Your task to perform on an android device: toggle translation in the chrome app Image 0: 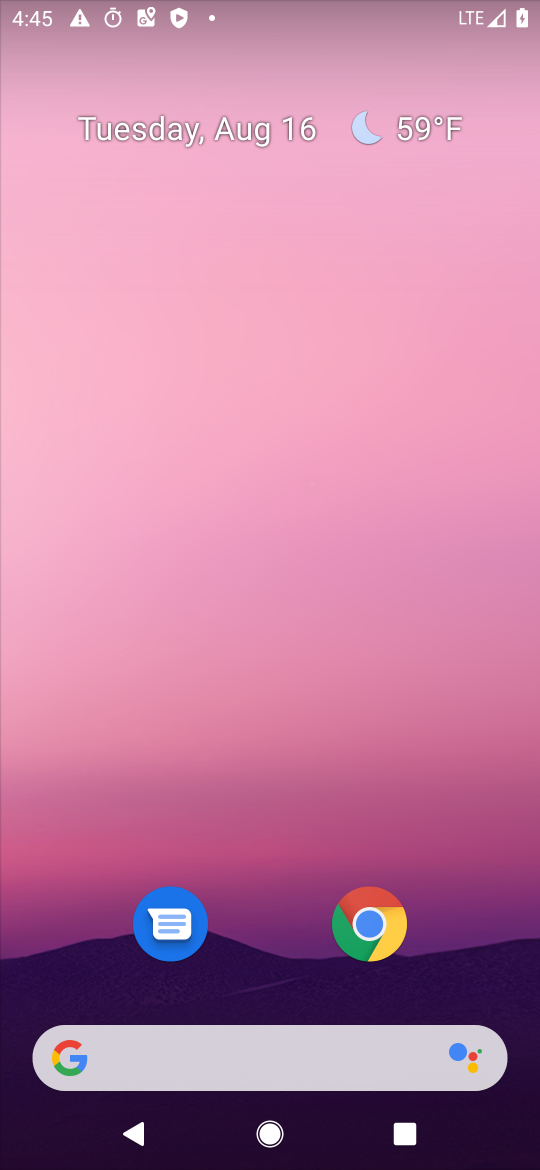
Step 0: click (380, 949)
Your task to perform on an android device: toggle translation in the chrome app Image 1: 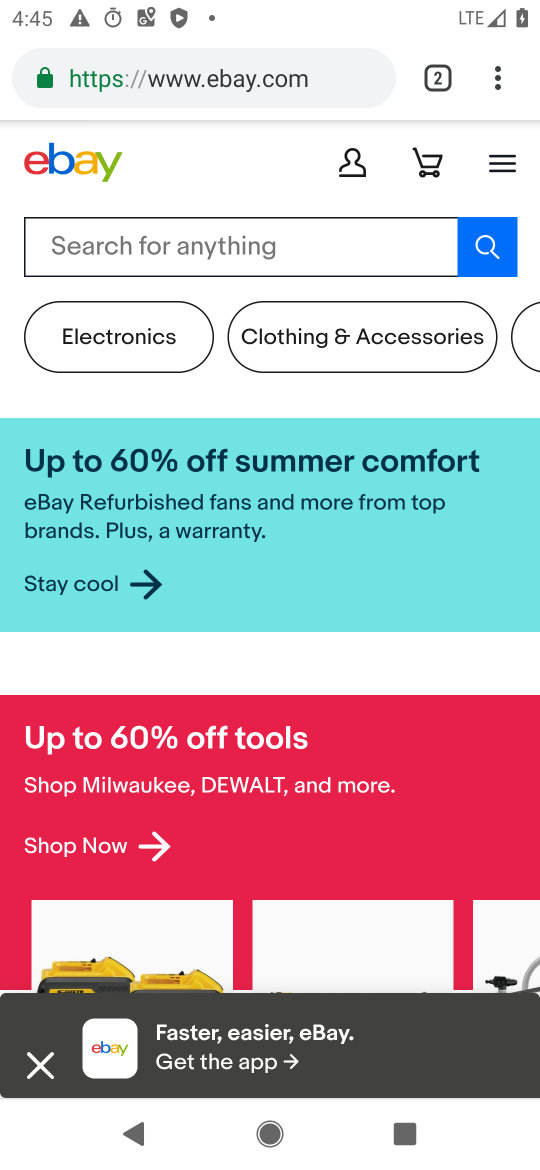
Step 1: click (499, 67)
Your task to perform on an android device: toggle translation in the chrome app Image 2: 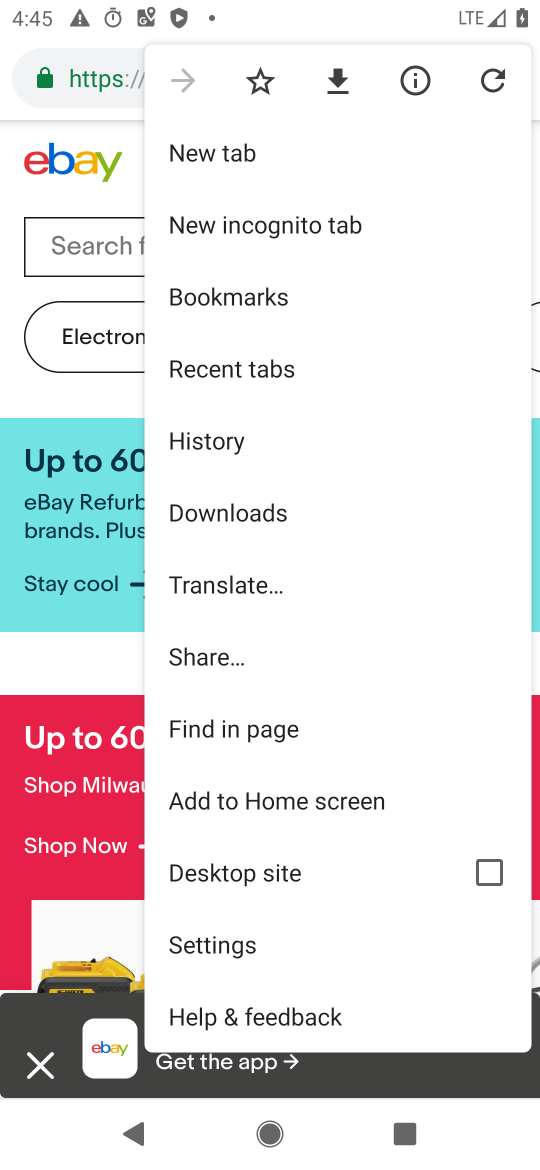
Step 2: click (252, 947)
Your task to perform on an android device: toggle translation in the chrome app Image 3: 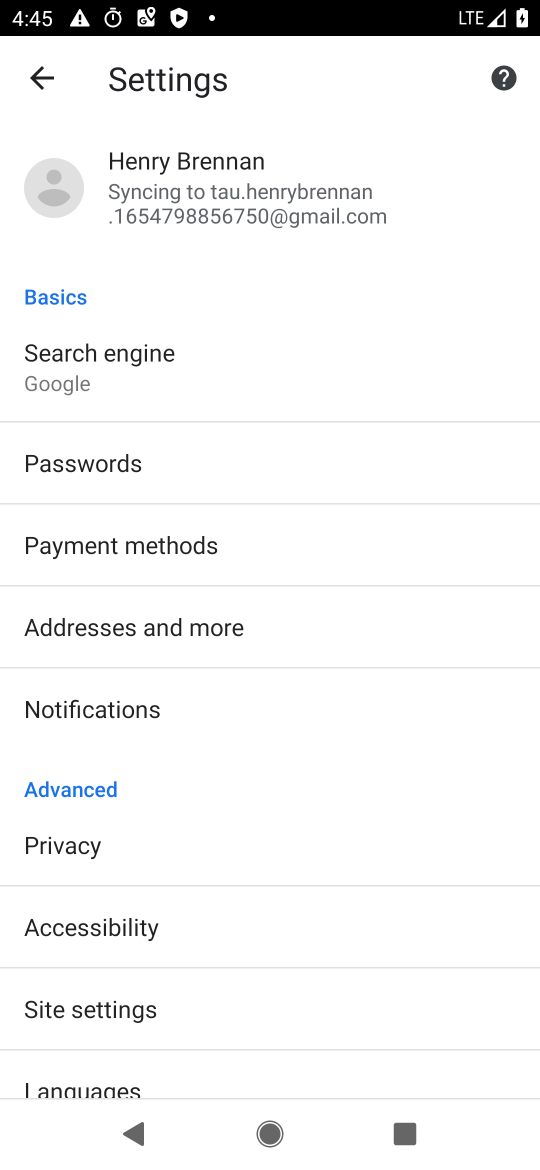
Step 3: click (126, 1068)
Your task to perform on an android device: toggle translation in the chrome app Image 4: 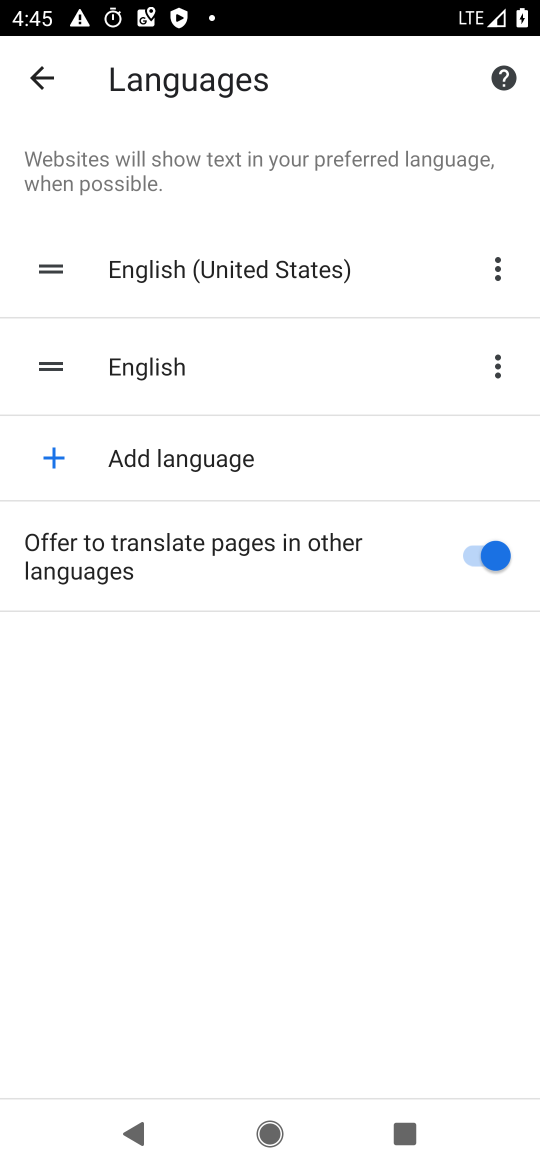
Step 4: click (485, 559)
Your task to perform on an android device: toggle translation in the chrome app Image 5: 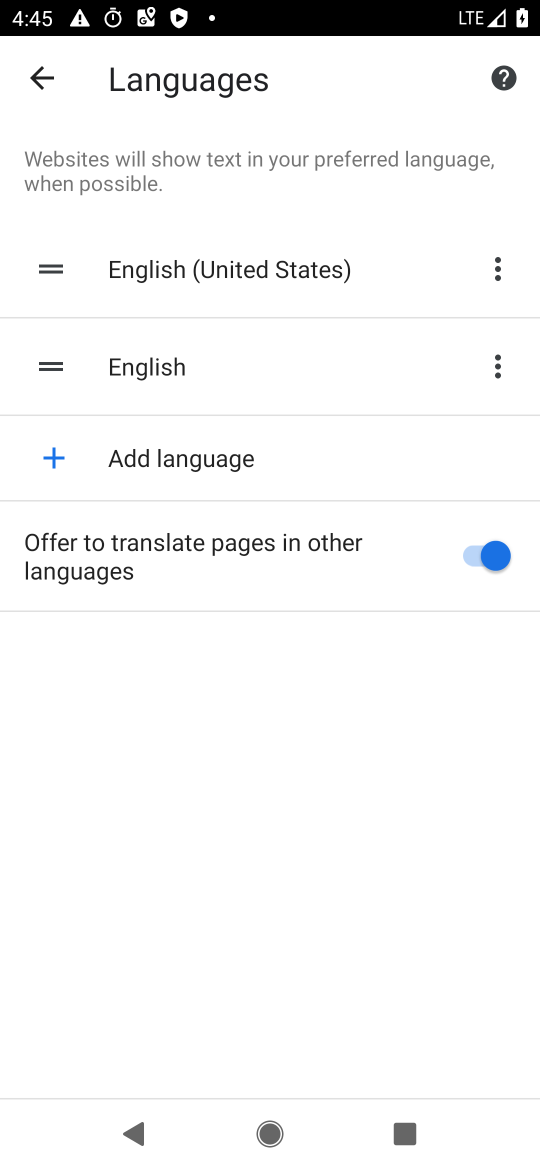
Step 5: click (485, 559)
Your task to perform on an android device: toggle translation in the chrome app Image 6: 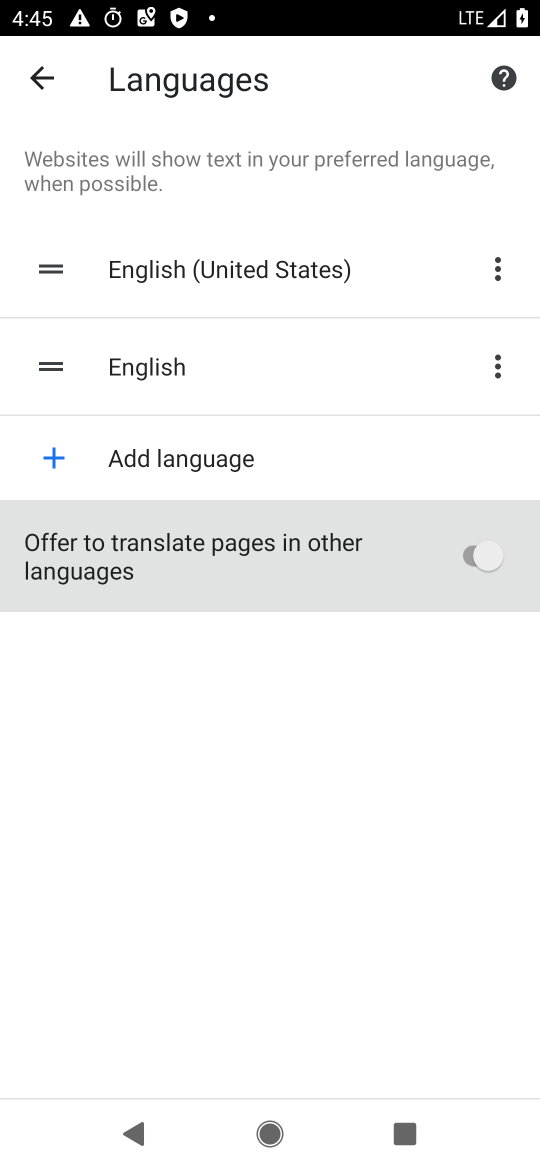
Step 6: click (485, 559)
Your task to perform on an android device: toggle translation in the chrome app Image 7: 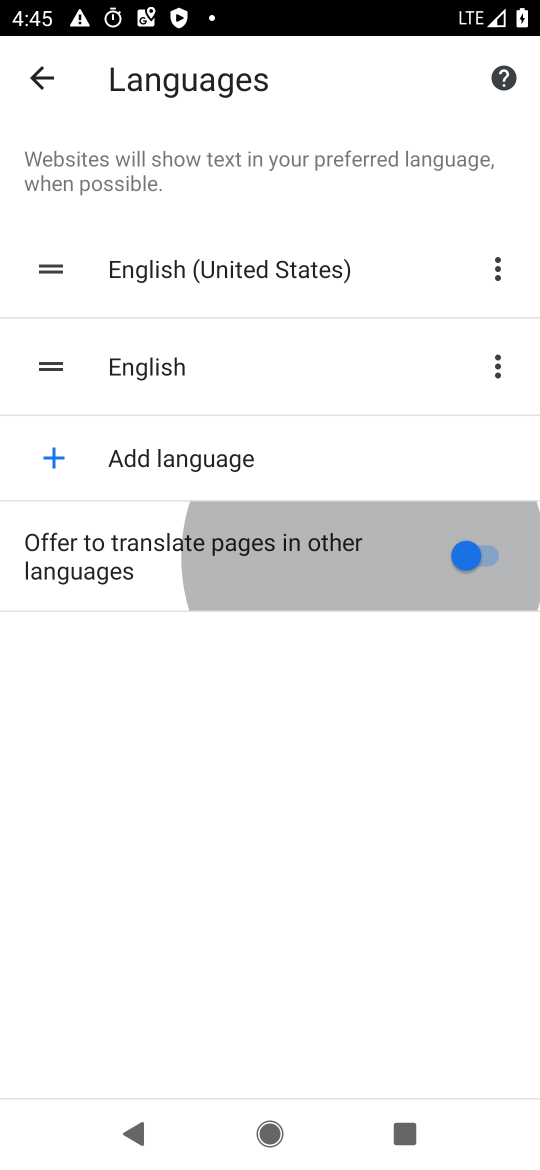
Step 7: click (485, 559)
Your task to perform on an android device: toggle translation in the chrome app Image 8: 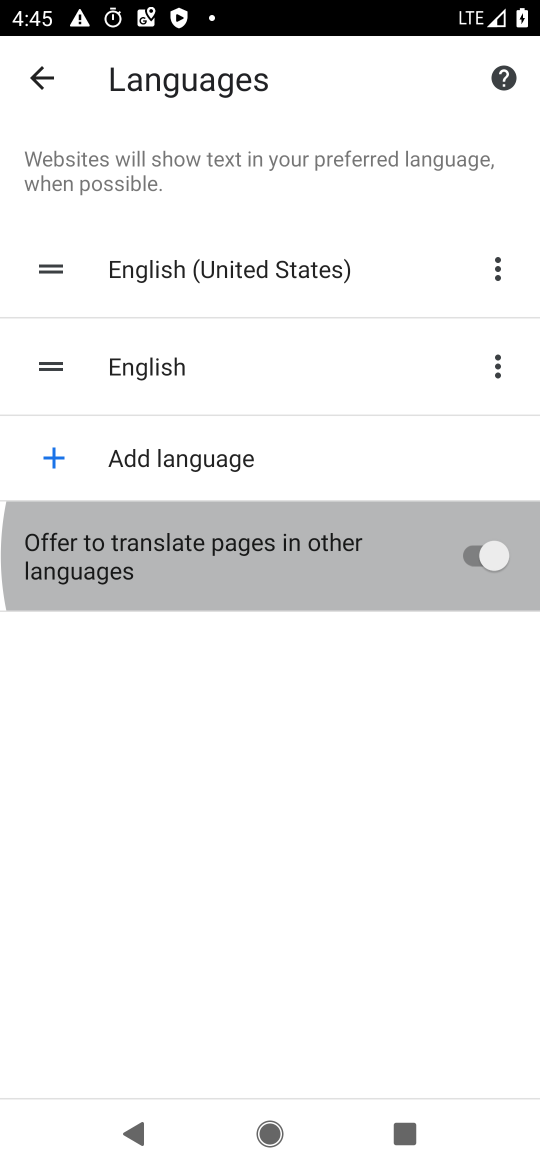
Step 8: click (485, 559)
Your task to perform on an android device: toggle translation in the chrome app Image 9: 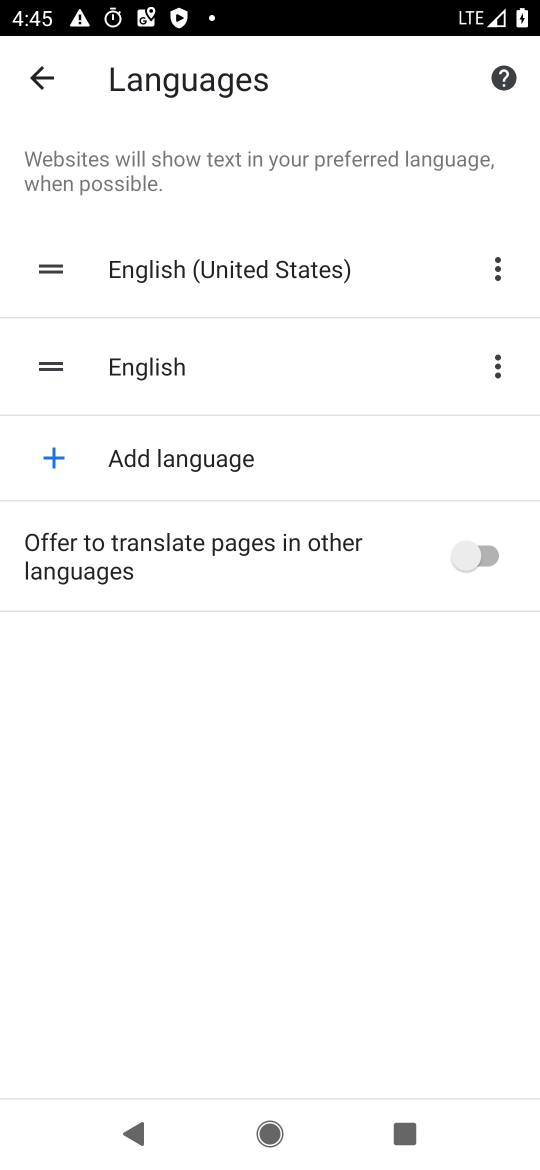
Step 9: click (485, 559)
Your task to perform on an android device: toggle translation in the chrome app Image 10: 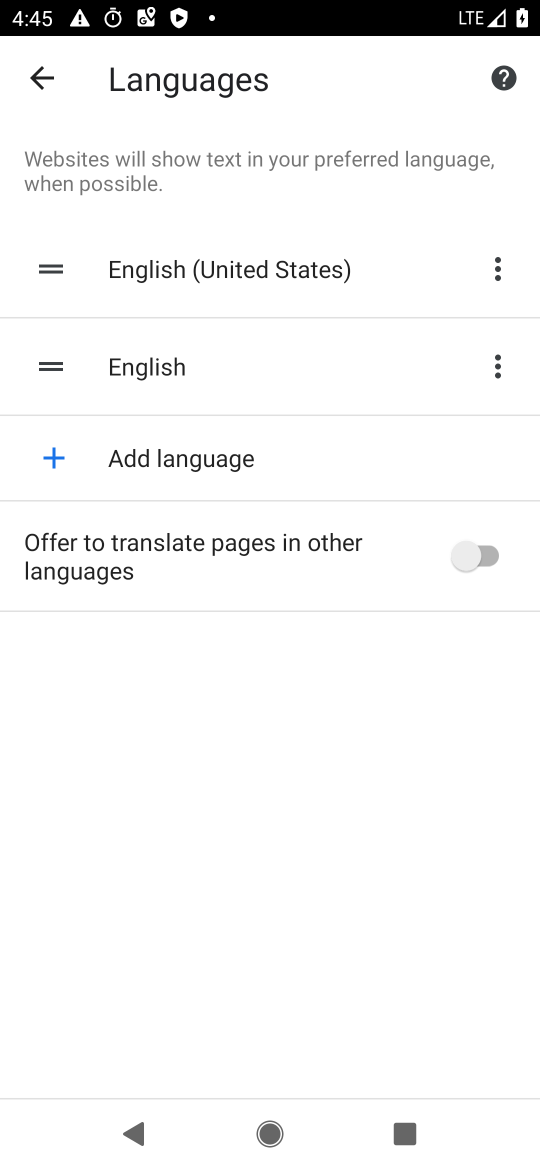
Step 10: task complete